Your task to perform on an android device: all mails in gmail Image 0: 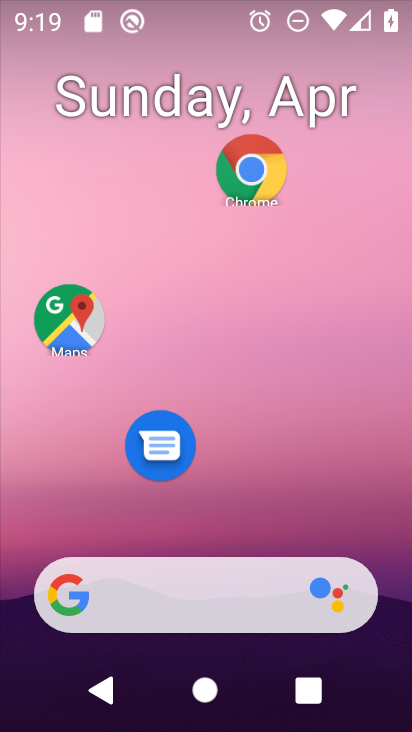
Step 0: drag from (263, 495) to (231, 0)
Your task to perform on an android device: all mails in gmail Image 1: 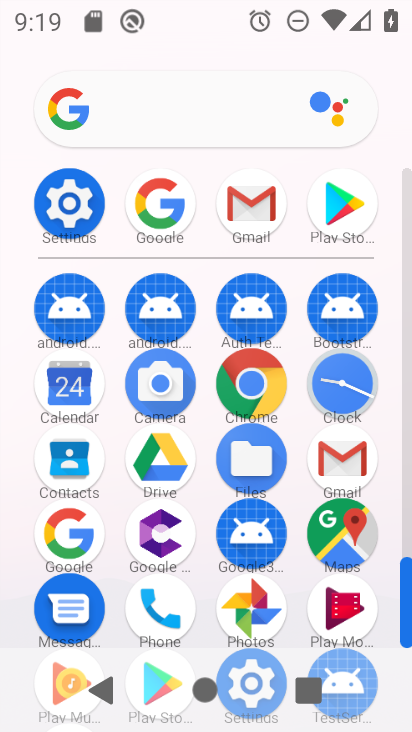
Step 1: click (244, 208)
Your task to perform on an android device: all mails in gmail Image 2: 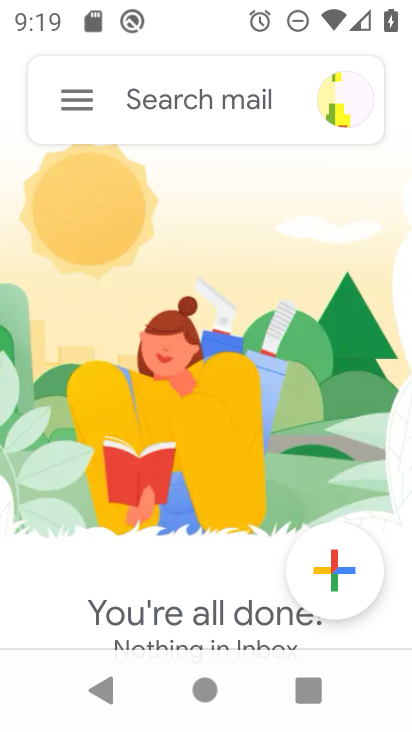
Step 2: click (72, 98)
Your task to perform on an android device: all mails in gmail Image 3: 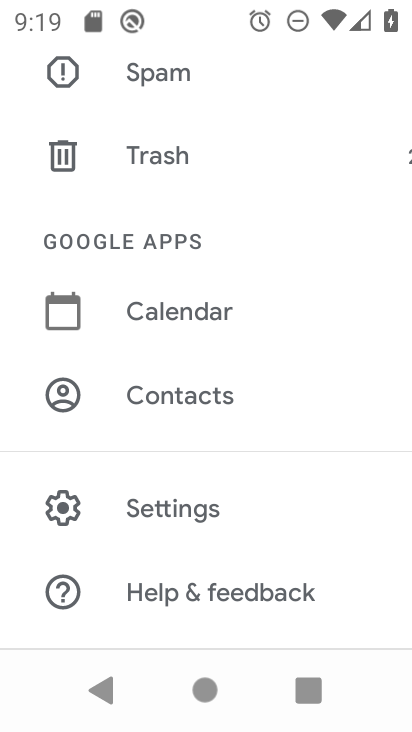
Step 3: drag from (239, 220) to (239, 526)
Your task to perform on an android device: all mails in gmail Image 4: 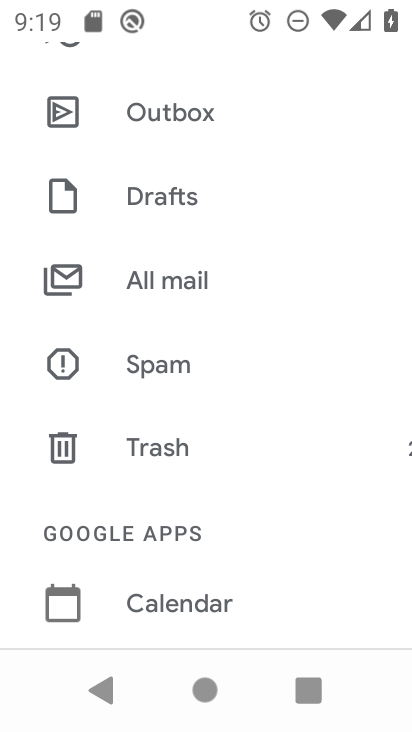
Step 4: click (147, 289)
Your task to perform on an android device: all mails in gmail Image 5: 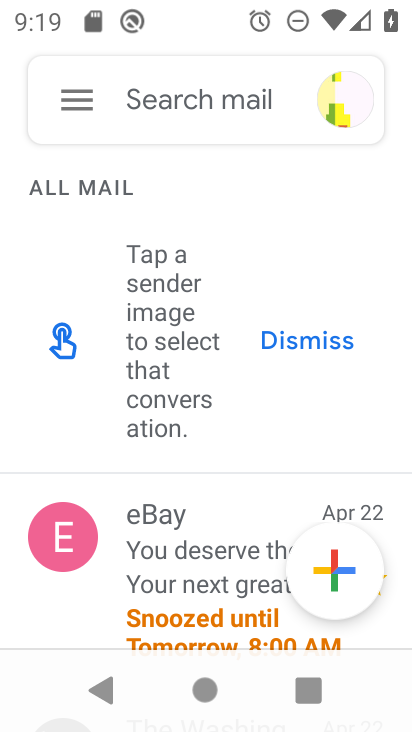
Step 5: click (249, 507)
Your task to perform on an android device: all mails in gmail Image 6: 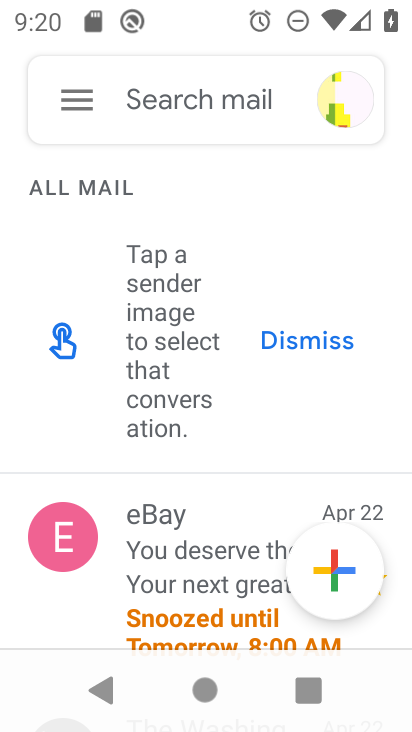
Step 6: task complete